Your task to perform on an android device: Go to privacy settings Image 0: 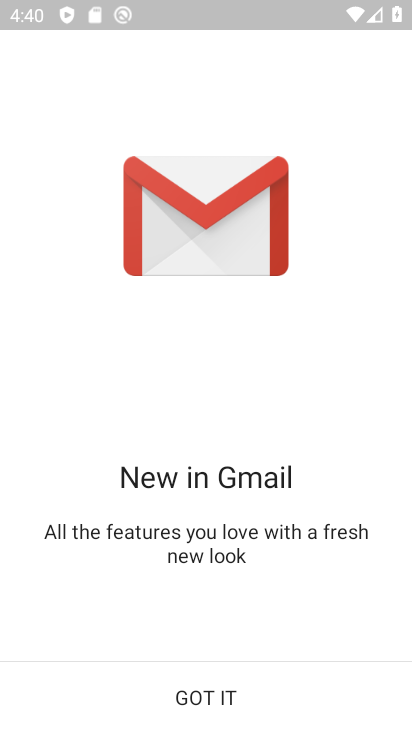
Step 0: press home button
Your task to perform on an android device: Go to privacy settings Image 1: 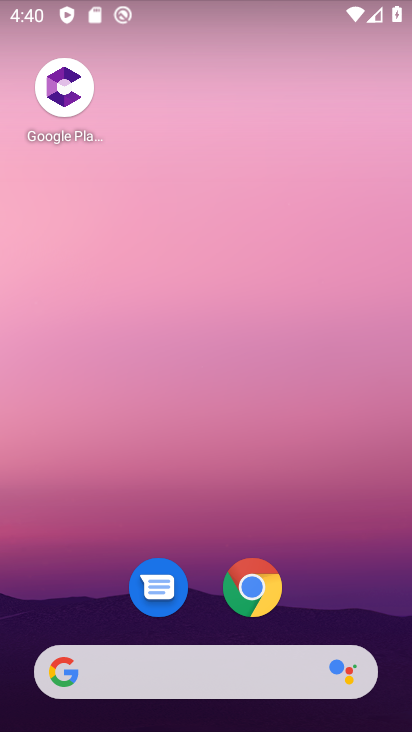
Step 1: drag from (217, 570) to (170, 61)
Your task to perform on an android device: Go to privacy settings Image 2: 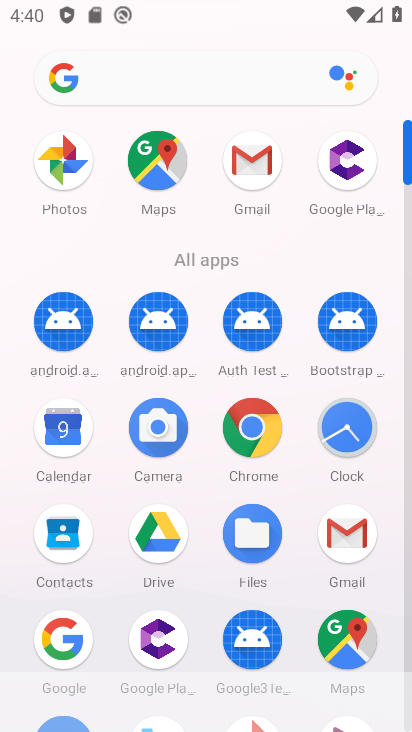
Step 2: drag from (218, 641) to (197, 297)
Your task to perform on an android device: Go to privacy settings Image 3: 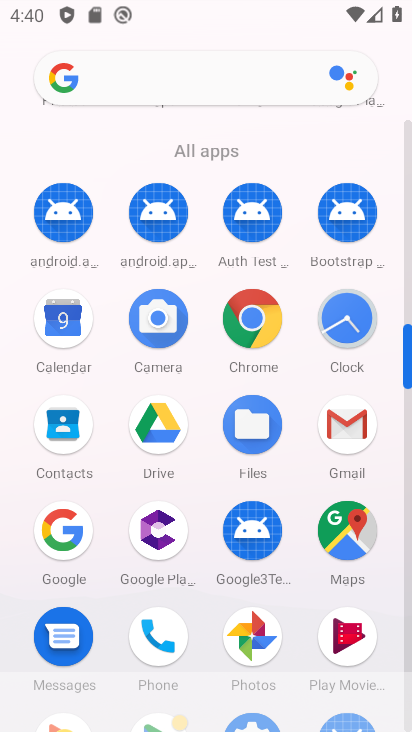
Step 3: drag from (205, 586) to (175, 179)
Your task to perform on an android device: Go to privacy settings Image 4: 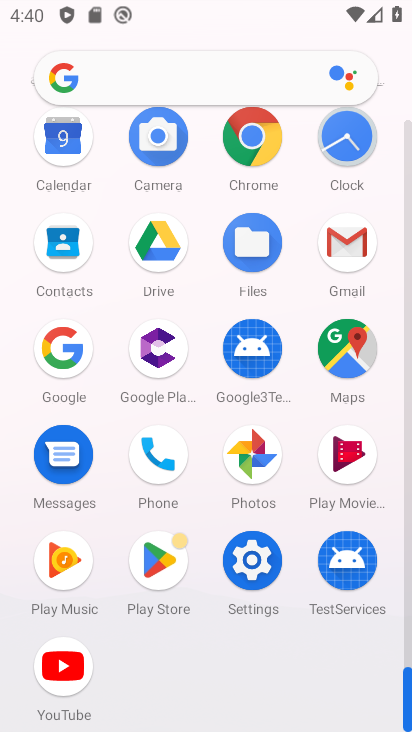
Step 4: click (250, 558)
Your task to perform on an android device: Go to privacy settings Image 5: 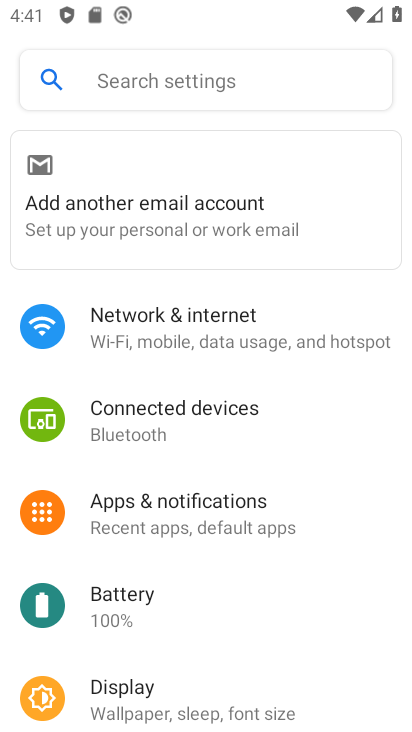
Step 5: drag from (222, 673) to (185, 360)
Your task to perform on an android device: Go to privacy settings Image 6: 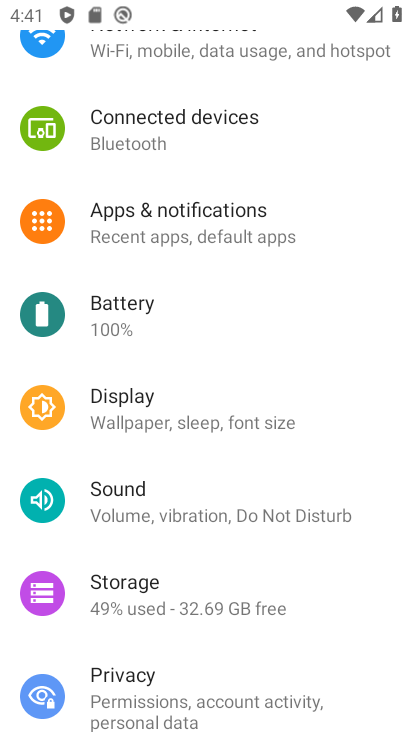
Step 6: click (165, 697)
Your task to perform on an android device: Go to privacy settings Image 7: 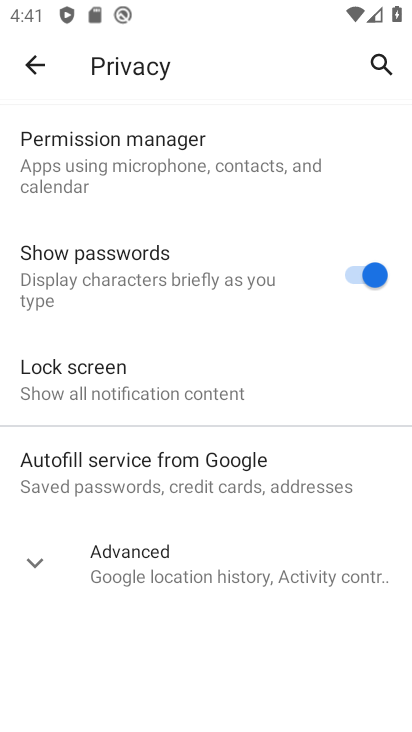
Step 7: task complete